Your task to perform on an android device: toggle notification dots Image 0: 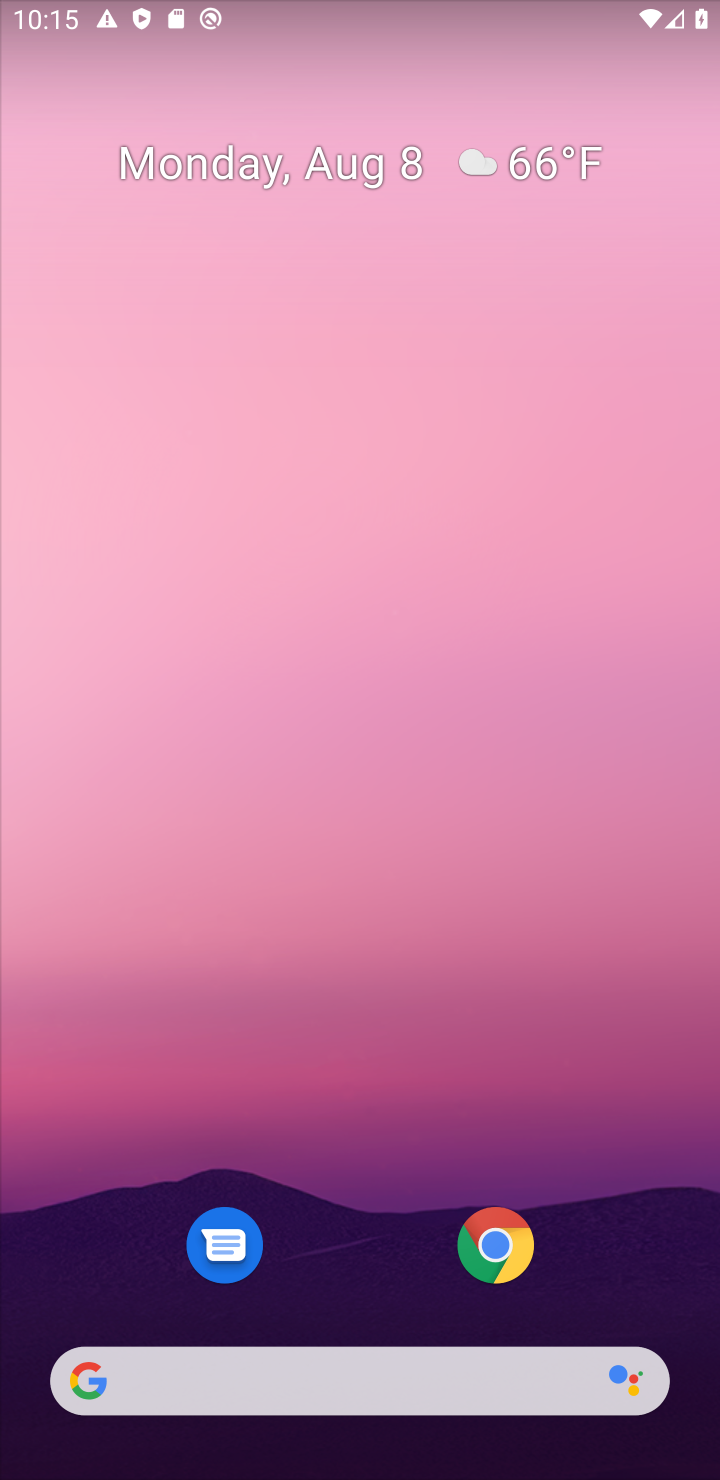
Step 0: drag from (405, 1175) to (515, 375)
Your task to perform on an android device: toggle notification dots Image 1: 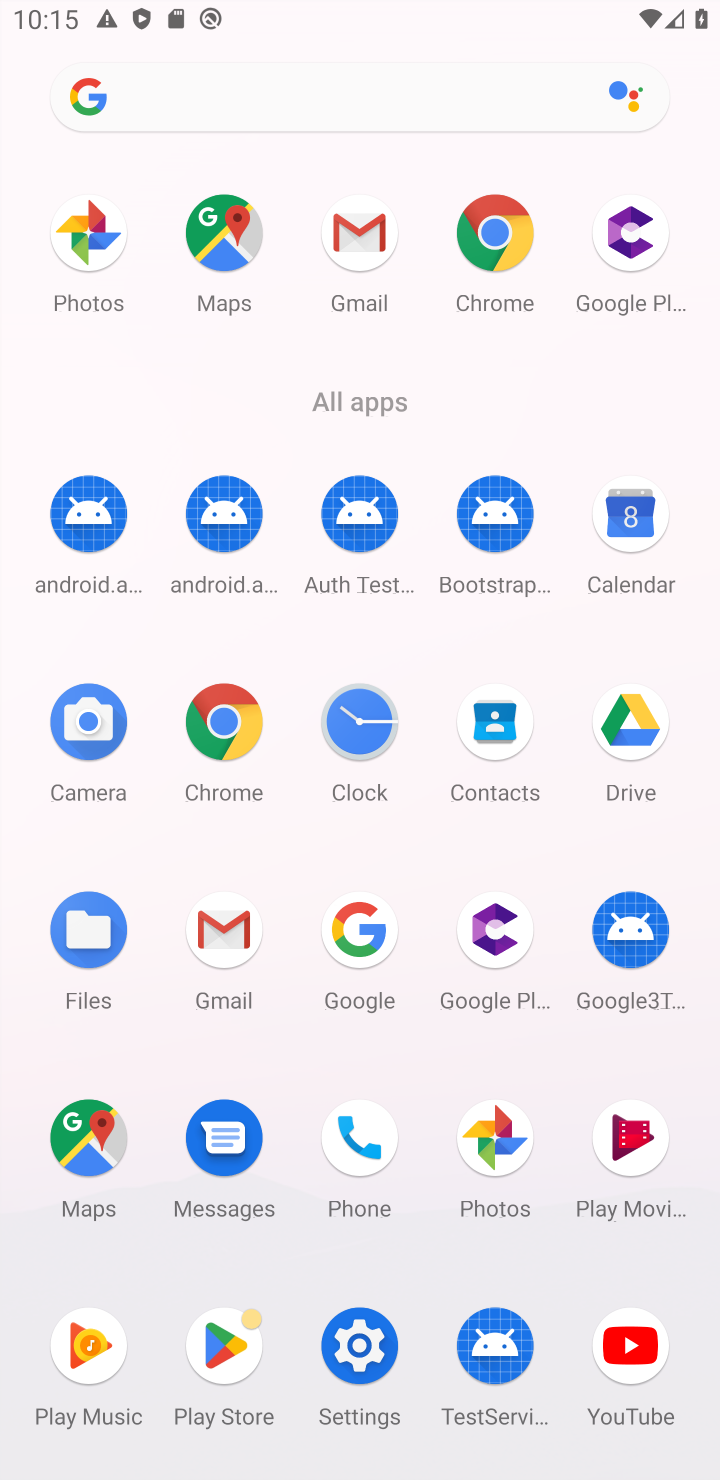
Step 1: drag from (349, 1321) to (193, 443)
Your task to perform on an android device: toggle notification dots Image 2: 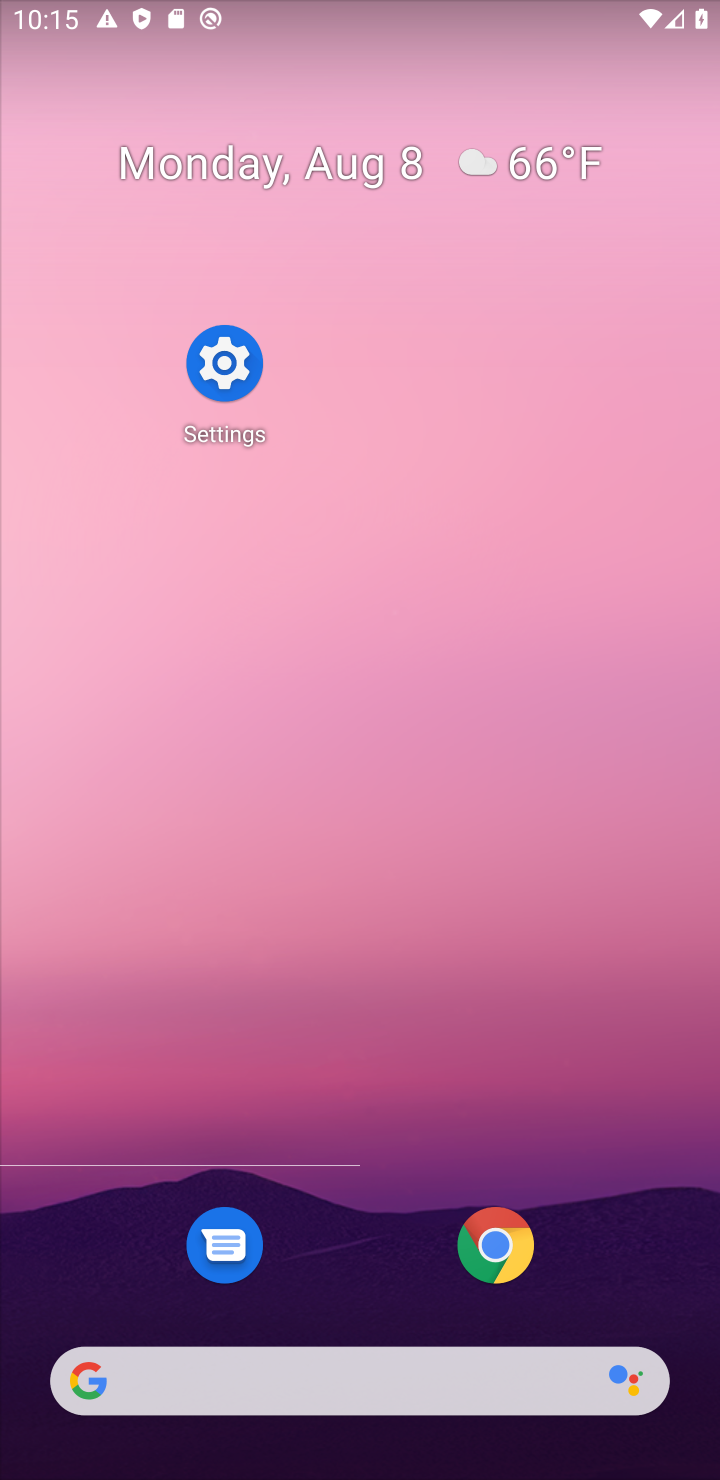
Step 2: click (234, 357)
Your task to perform on an android device: toggle notification dots Image 3: 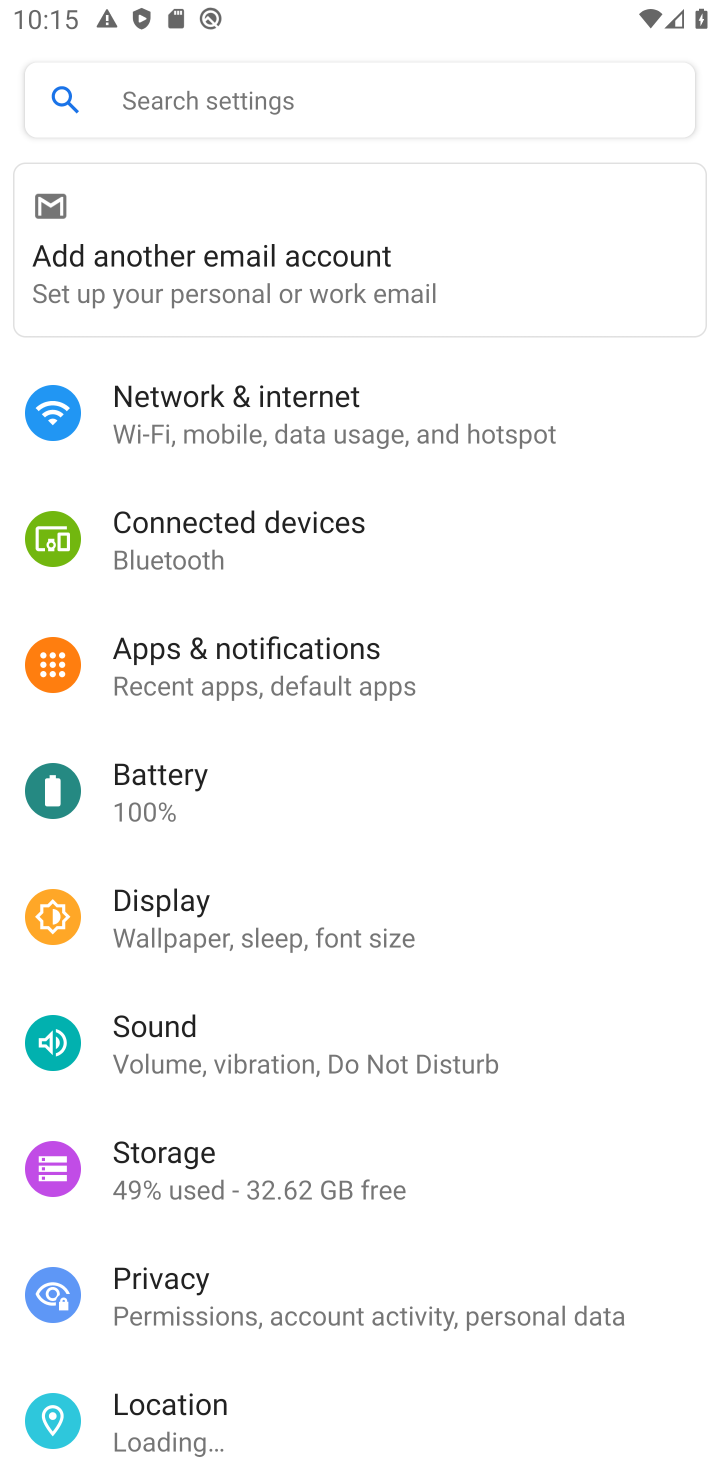
Step 3: click (413, 659)
Your task to perform on an android device: toggle notification dots Image 4: 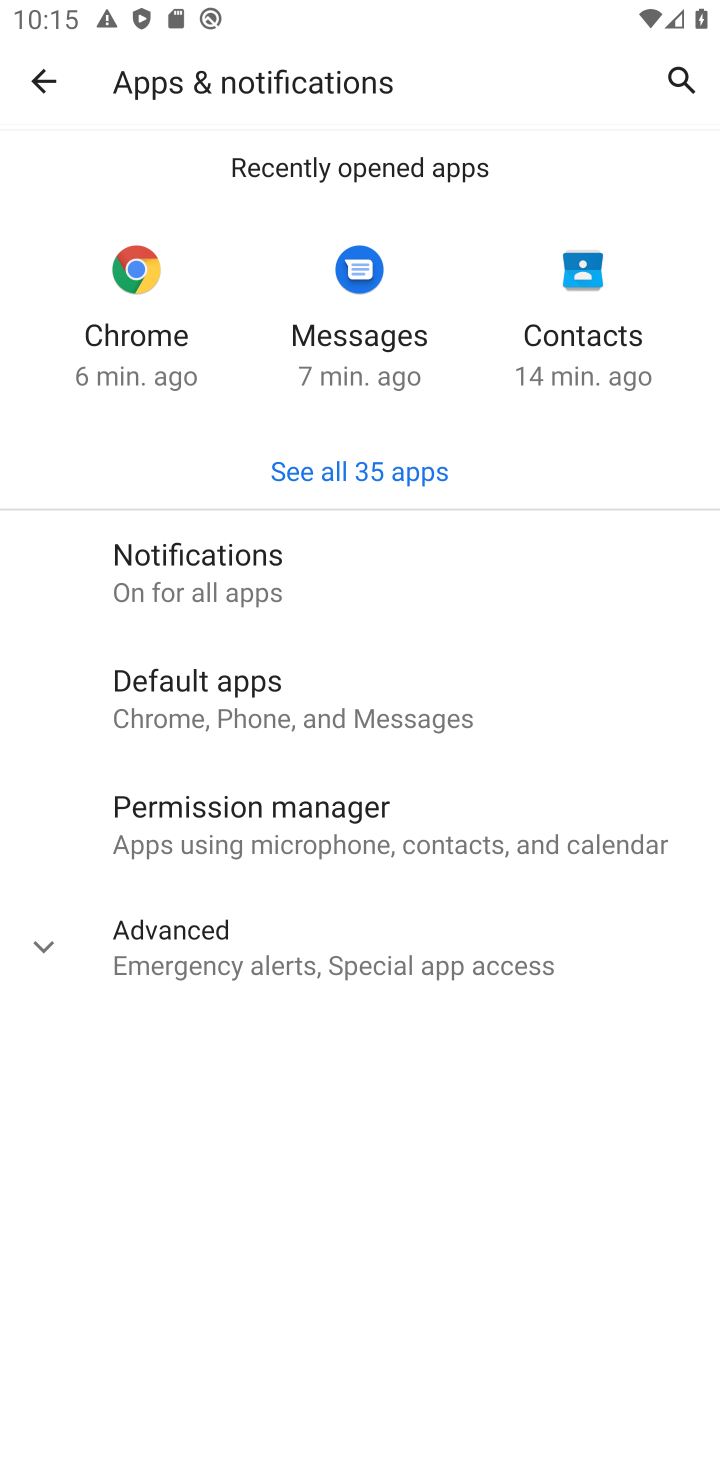
Step 4: click (315, 584)
Your task to perform on an android device: toggle notification dots Image 5: 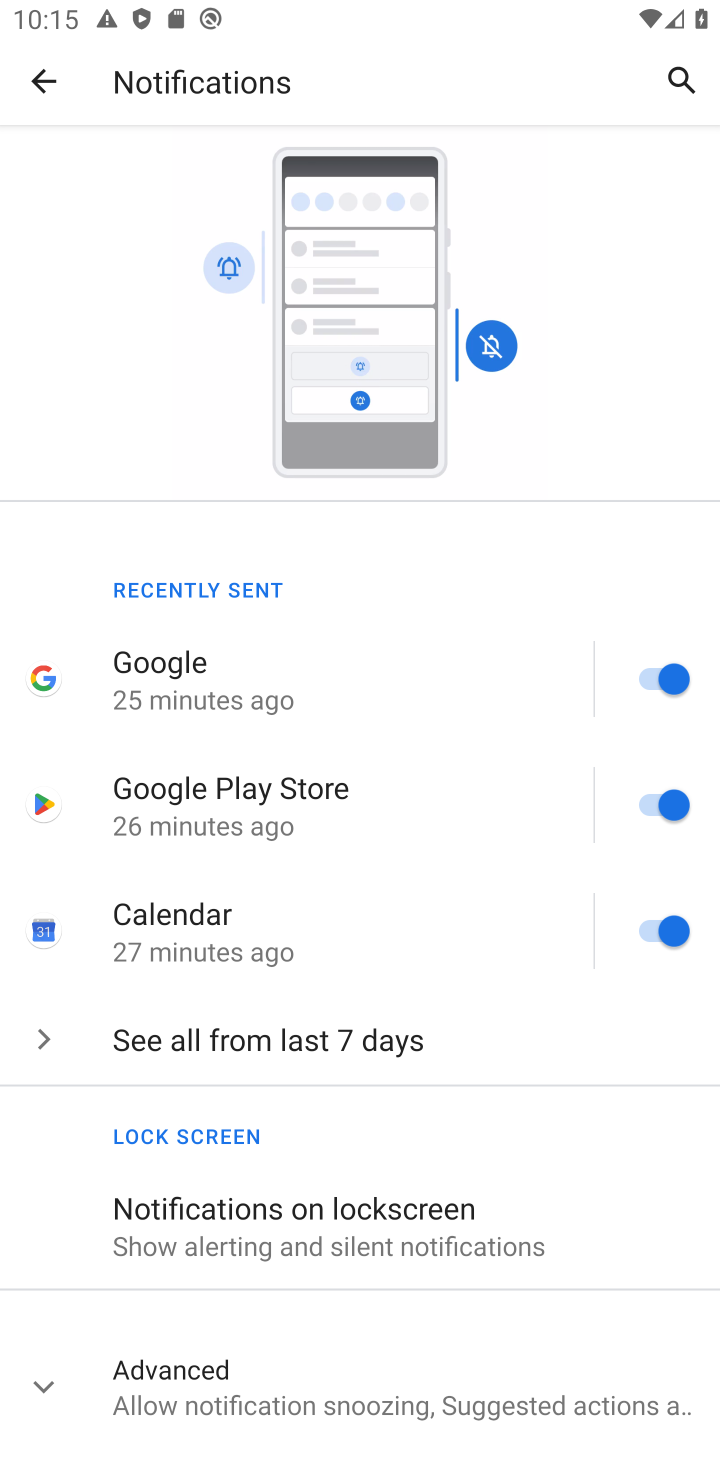
Step 5: drag from (414, 1332) to (413, 664)
Your task to perform on an android device: toggle notification dots Image 6: 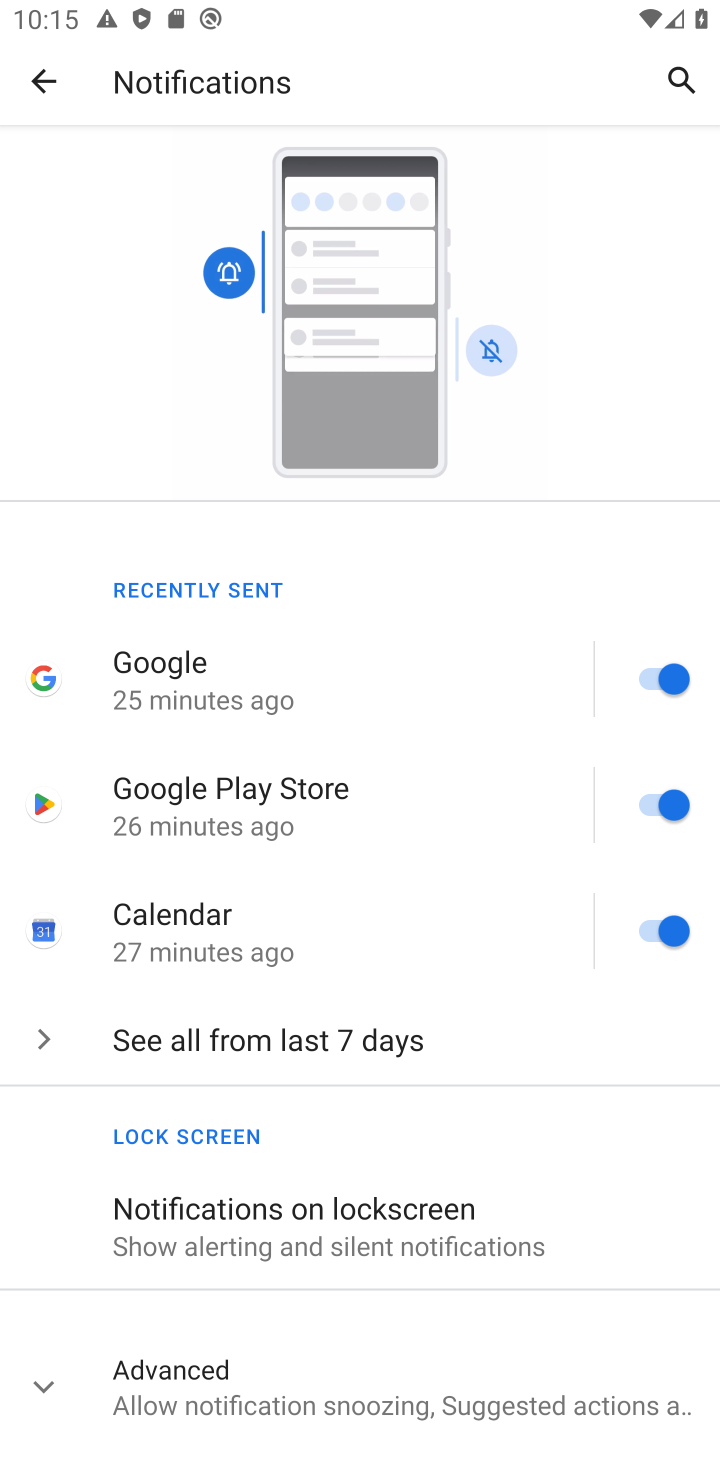
Step 6: click (305, 1397)
Your task to perform on an android device: toggle notification dots Image 7: 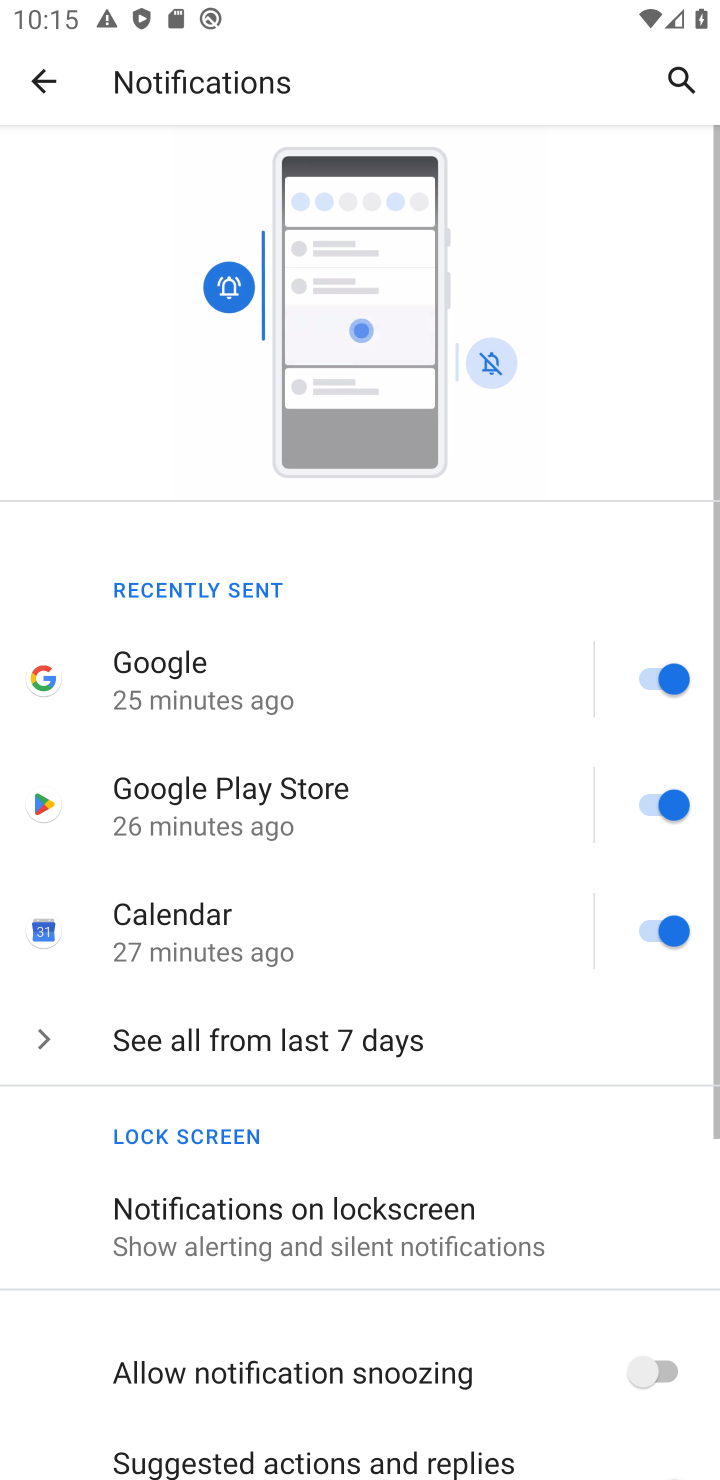
Step 7: drag from (305, 1397) to (282, 757)
Your task to perform on an android device: toggle notification dots Image 8: 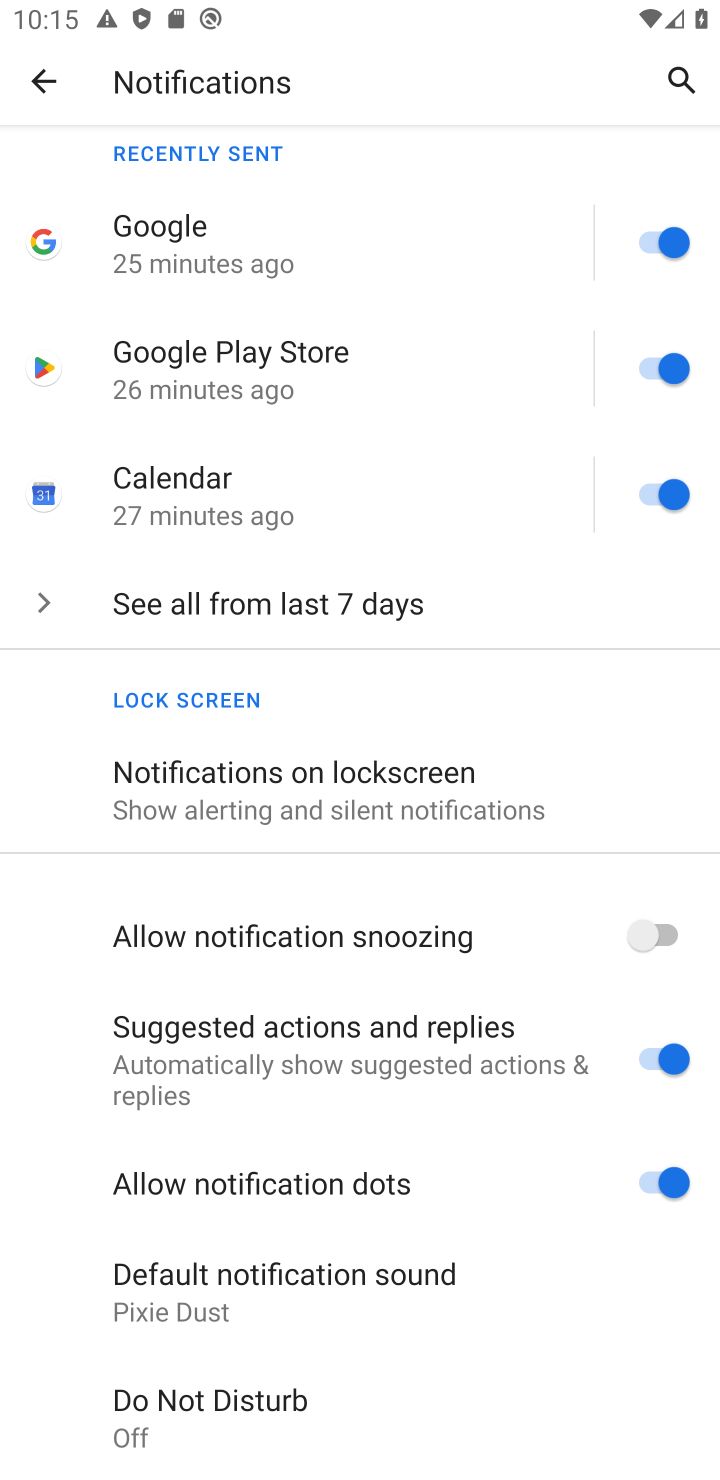
Step 8: click (672, 1184)
Your task to perform on an android device: toggle notification dots Image 9: 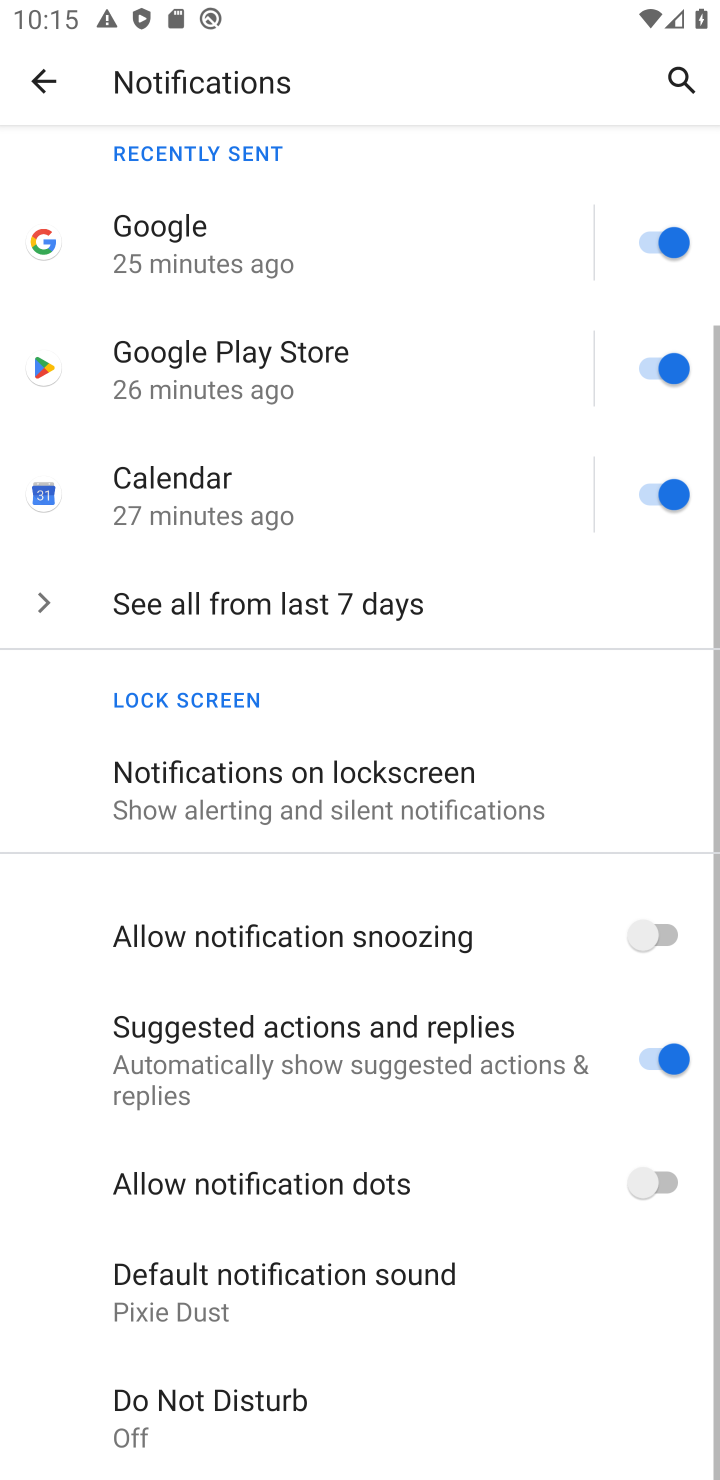
Step 9: task complete